Your task to perform on an android device: Go to internet settings Image 0: 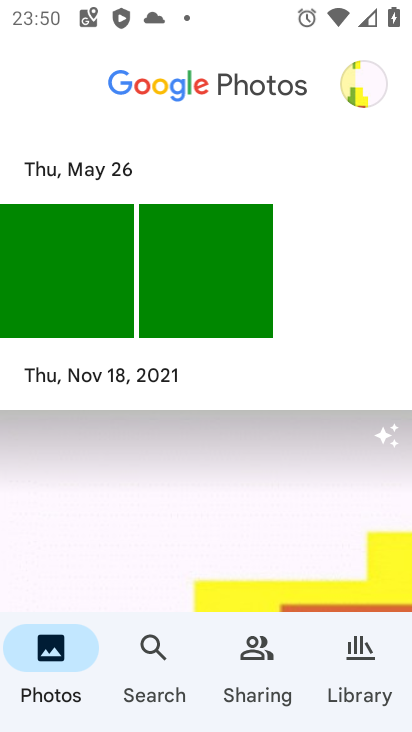
Step 0: press home button
Your task to perform on an android device: Go to internet settings Image 1: 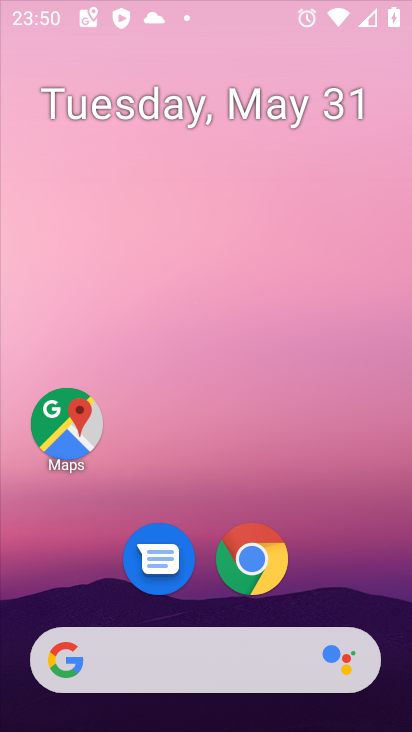
Step 1: drag from (333, 561) to (393, 26)
Your task to perform on an android device: Go to internet settings Image 2: 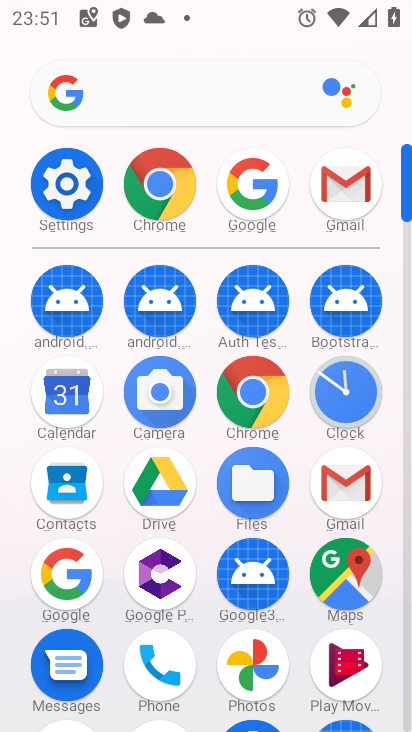
Step 2: click (64, 191)
Your task to perform on an android device: Go to internet settings Image 3: 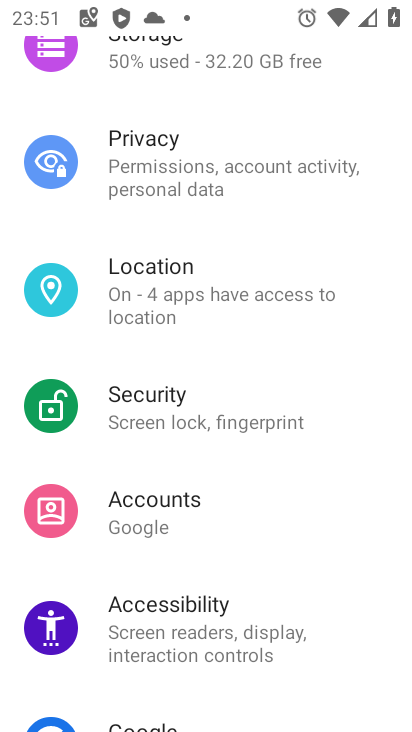
Step 3: drag from (220, 352) to (250, 640)
Your task to perform on an android device: Go to internet settings Image 4: 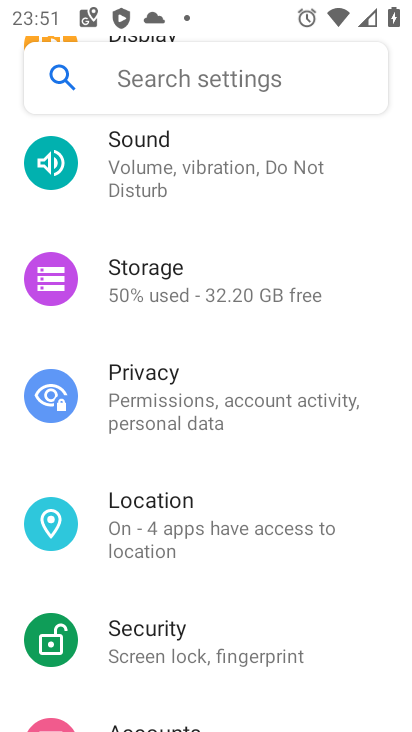
Step 4: drag from (193, 156) to (232, 724)
Your task to perform on an android device: Go to internet settings Image 5: 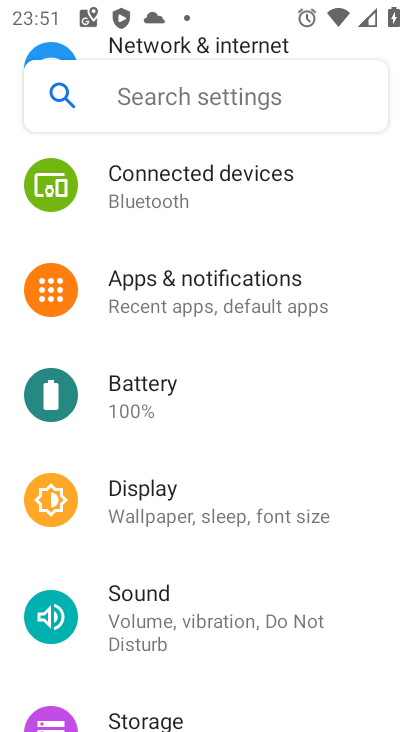
Step 5: drag from (182, 210) to (239, 586)
Your task to perform on an android device: Go to internet settings Image 6: 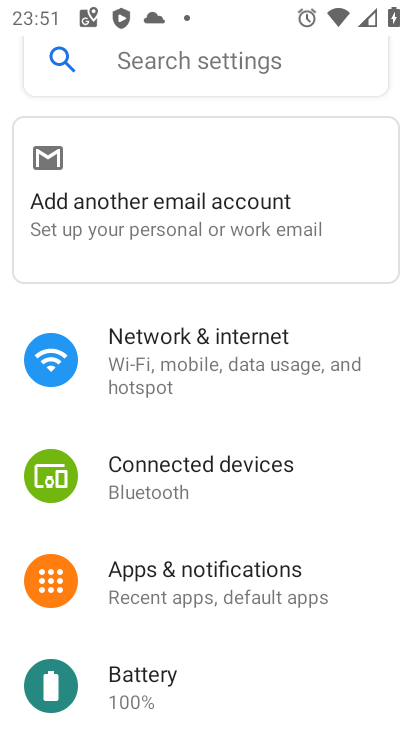
Step 6: click (190, 386)
Your task to perform on an android device: Go to internet settings Image 7: 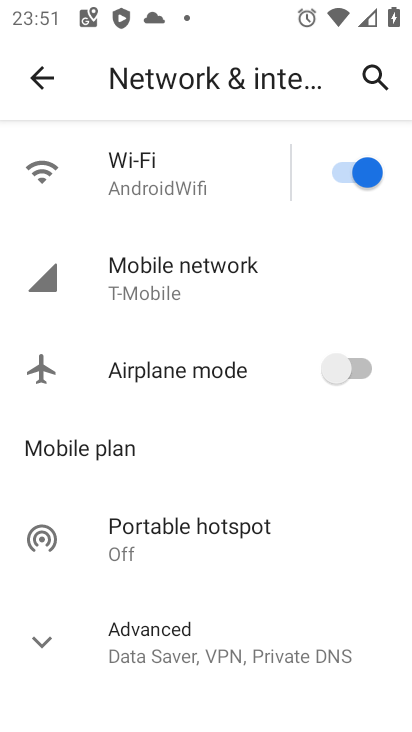
Step 7: click (151, 179)
Your task to perform on an android device: Go to internet settings Image 8: 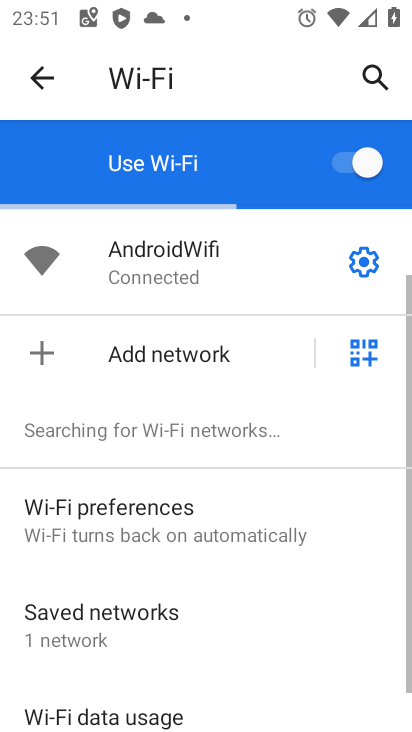
Step 8: click (193, 278)
Your task to perform on an android device: Go to internet settings Image 9: 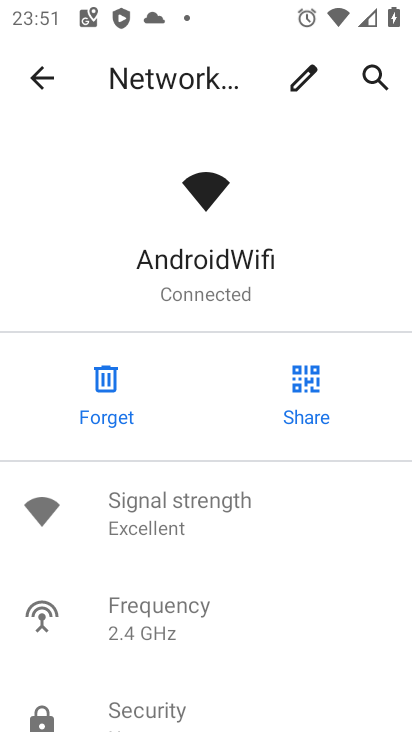
Step 9: task complete